Your task to perform on an android device: snooze an email in the gmail app Image 0: 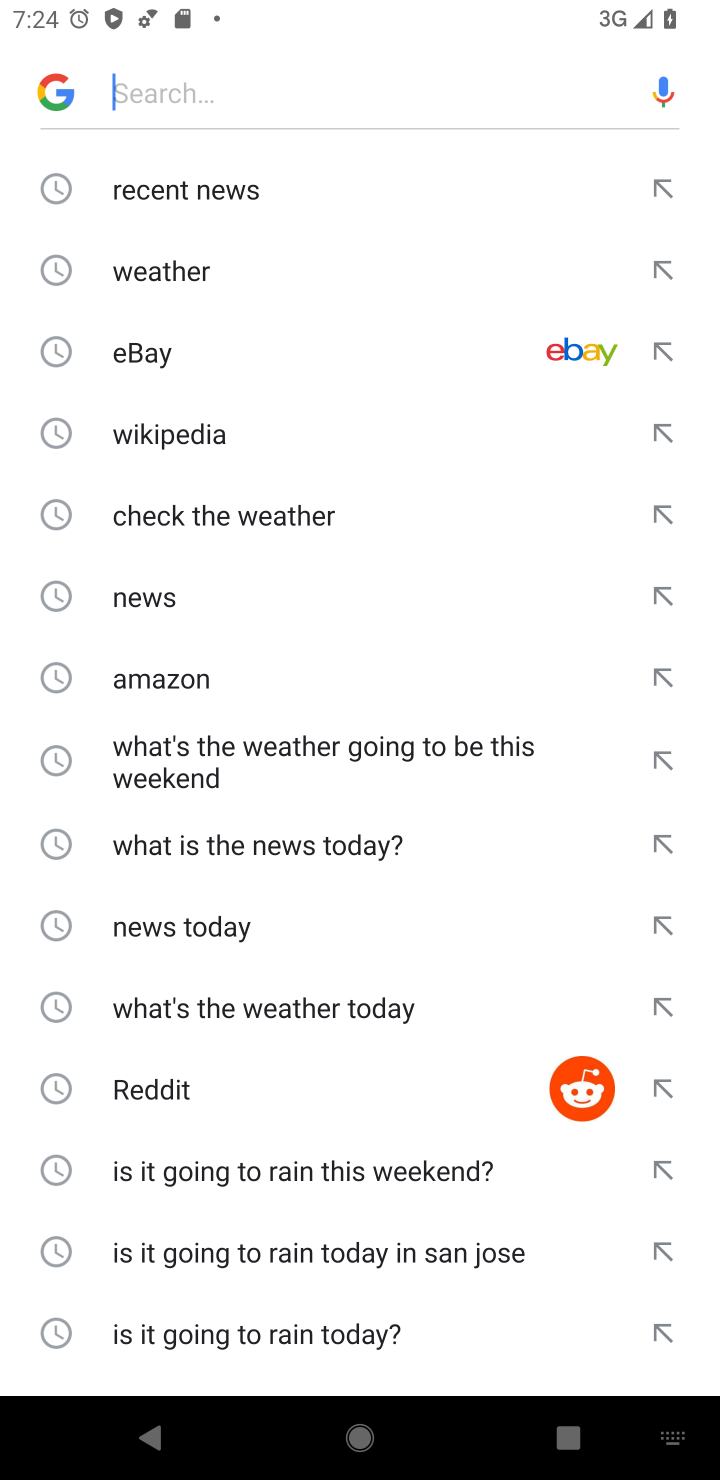
Step 0: press home button
Your task to perform on an android device: snooze an email in the gmail app Image 1: 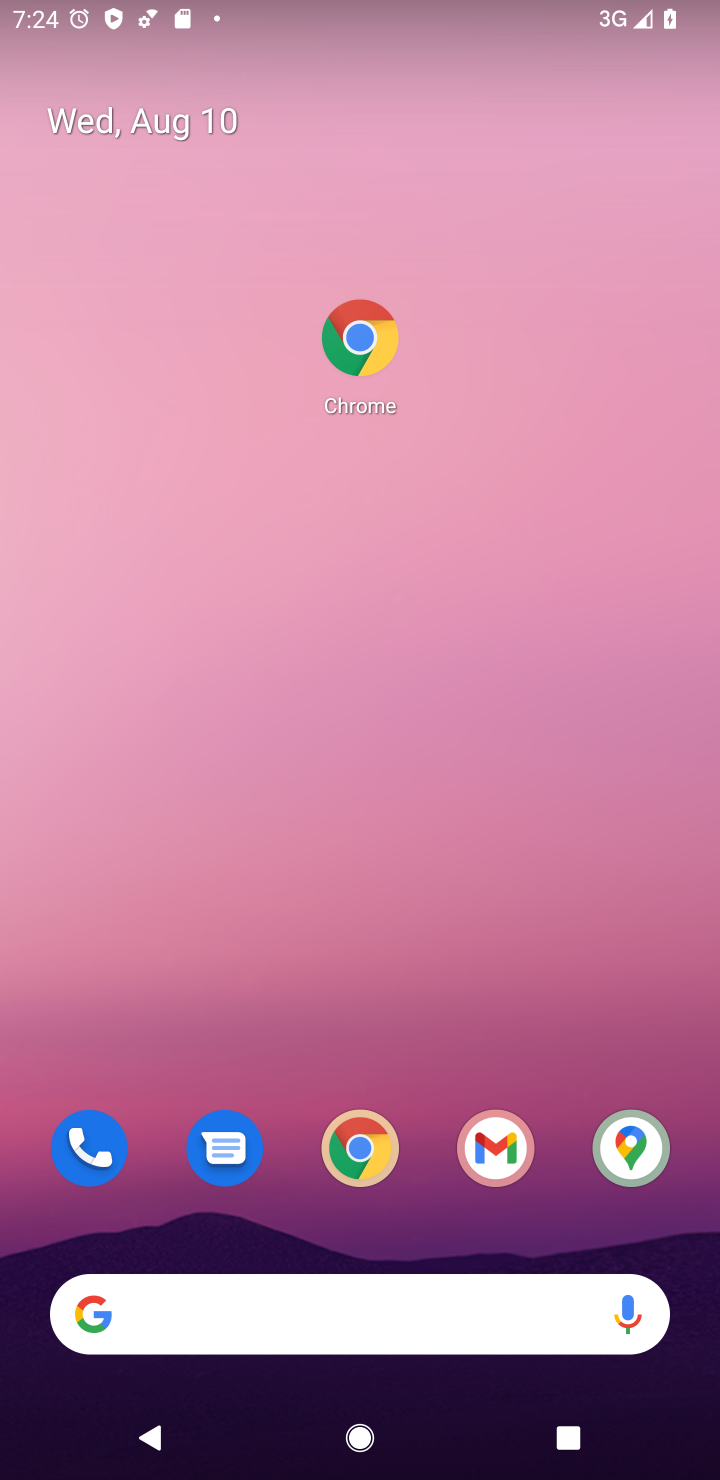
Step 1: click (484, 1155)
Your task to perform on an android device: snooze an email in the gmail app Image 2: 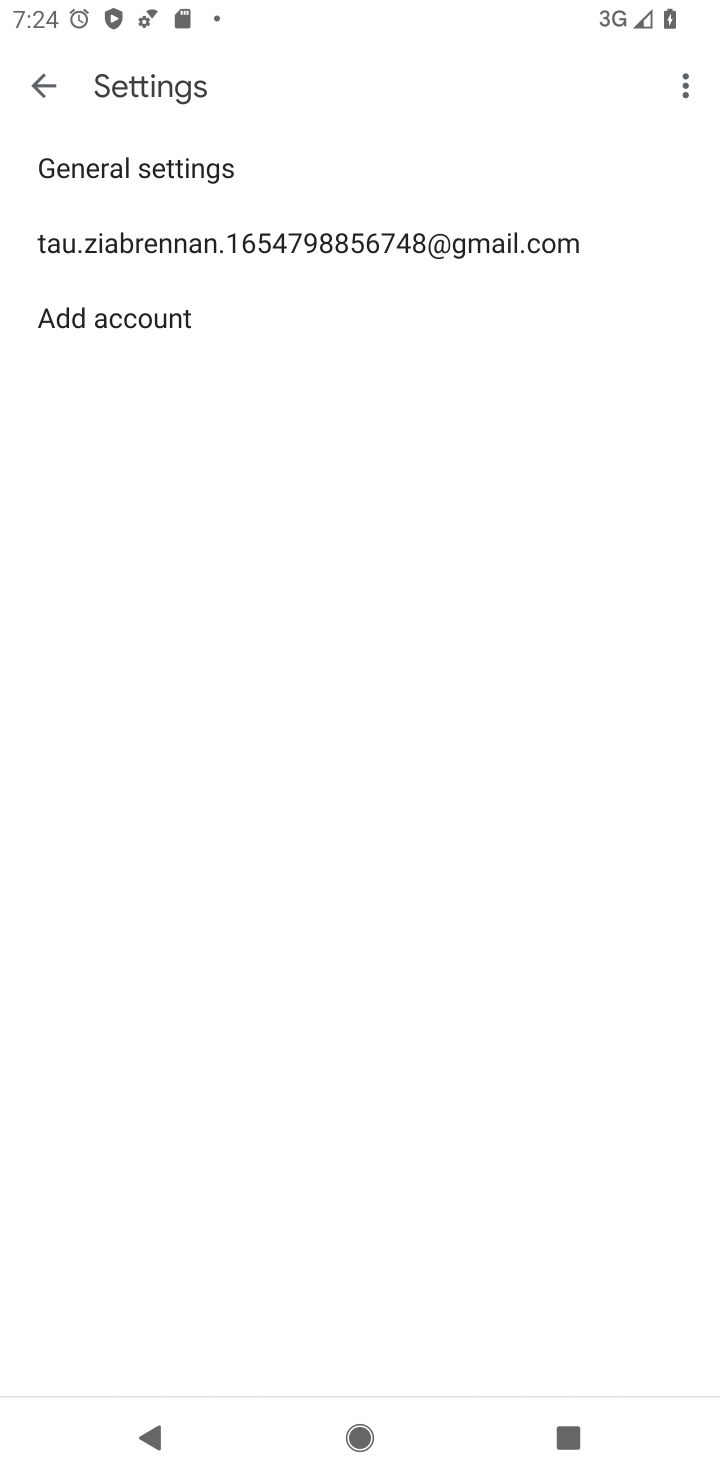
Step 2: click (39, 76)
Your task to perform on an android device: snooze an email in the gmail app Image 3: 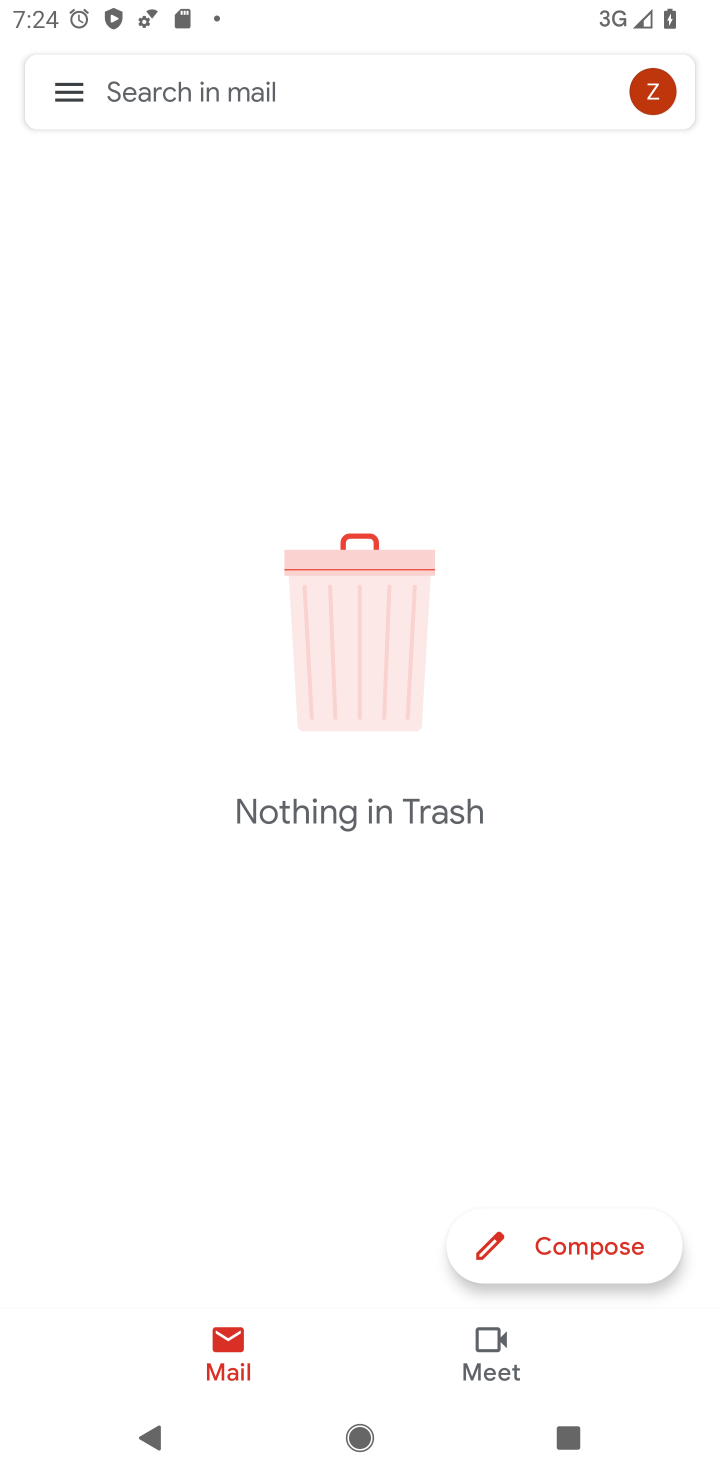
Step 3: task complete